Your task to perform on an android device: change the upload size in google photos Image 0: 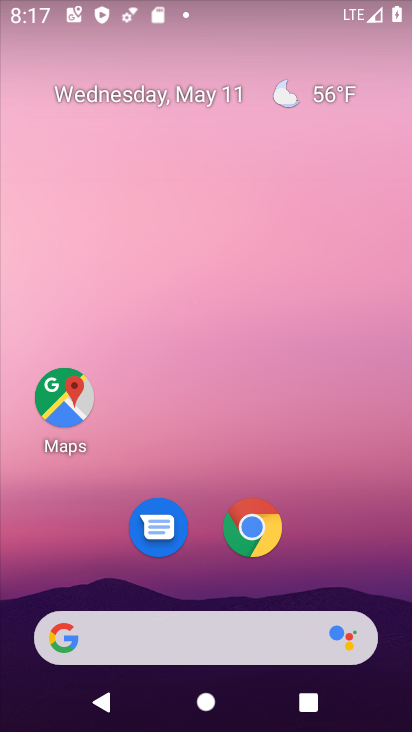
Step 0: drag from (96, 613) to (195, 217)
Your task to perform on an android device: change the upload size in google photos Image 1: 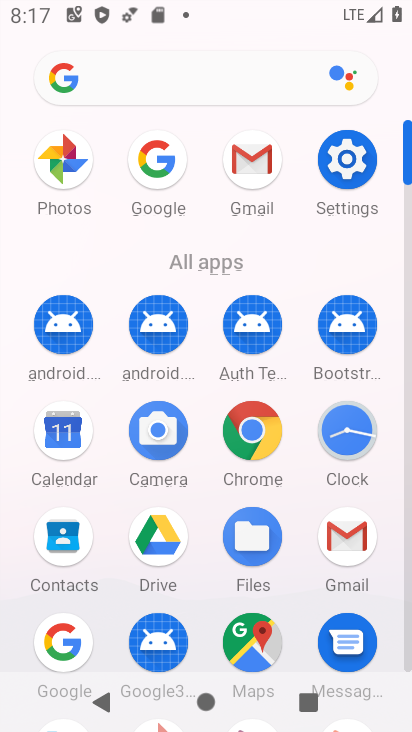
Step 1: drag from (170, 657) to (233, 479)
Your task to perform on an android device: change the upload size in google photos Image 2: 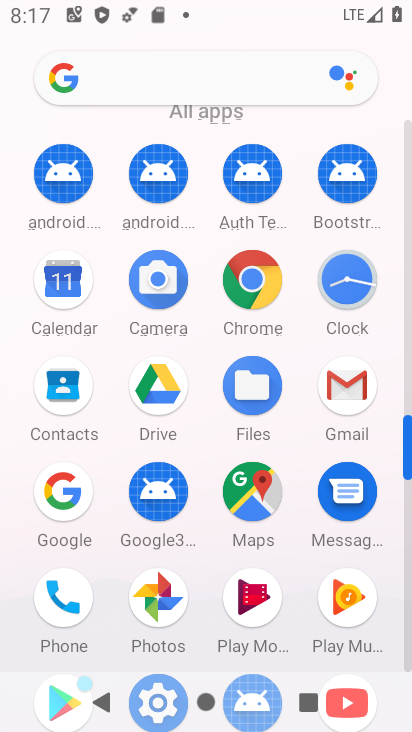
Step 2: click (171, 613)
Your task to perform on an android device: change the upload size in google photos Image 3: 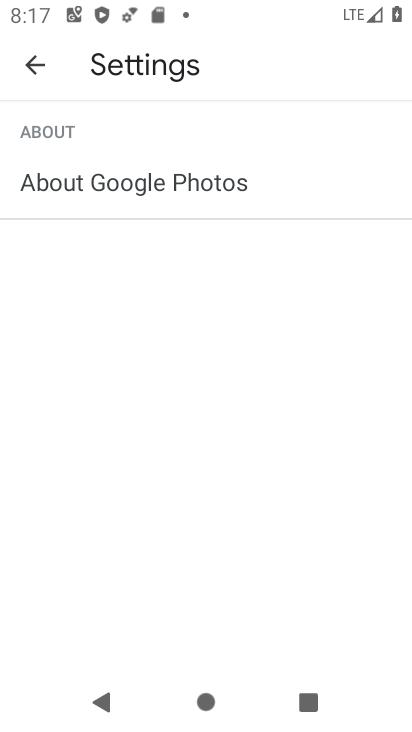
Step 3: click (34, 56)
Your task to perform on an android device: change the upload size in google photos Image 4: 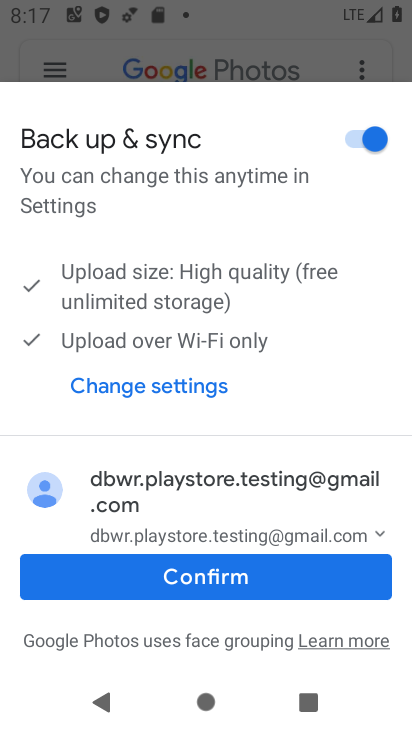
Step 4: click (253, 570)
Your task to perform on an android device: change the upload size in google photos Image 5: 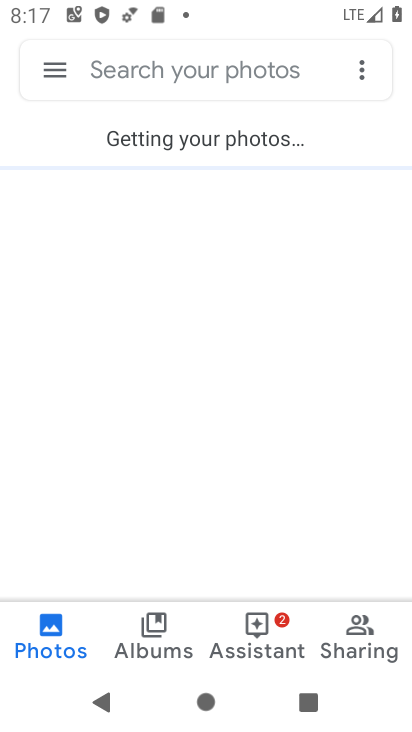
Step 5: click (69, 74)
Your task to perform on an android device: change the upload size in google photos Image 6: 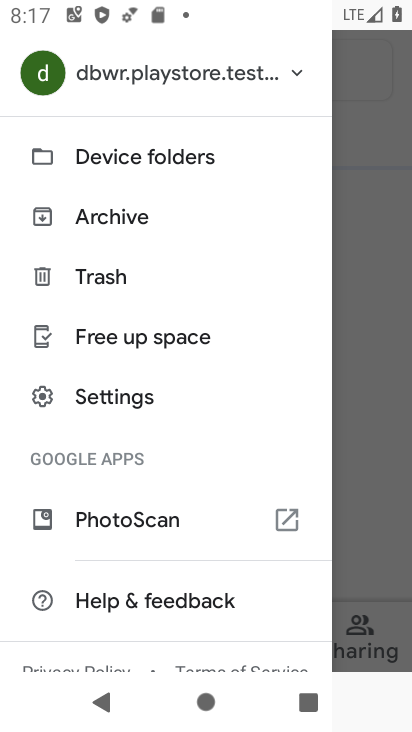
Step 6: drag from (128, 618) to (196, 382)
Your task to perform on an android device: change the upload size in google photos Image 7: 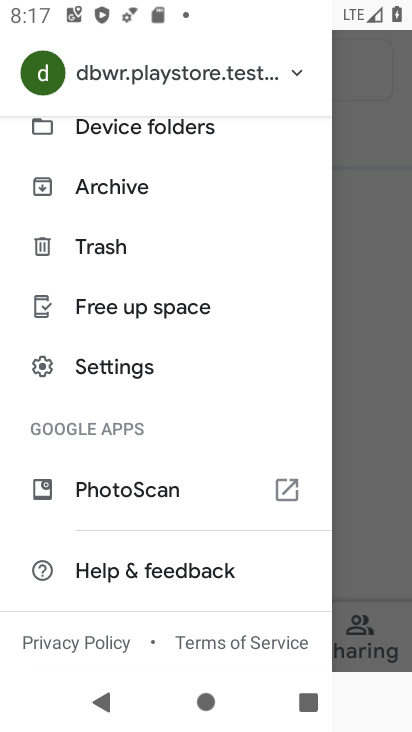
Step 7: click (187, 362)
Your task to perform on an android device: change the upload size in google photos Image 8: 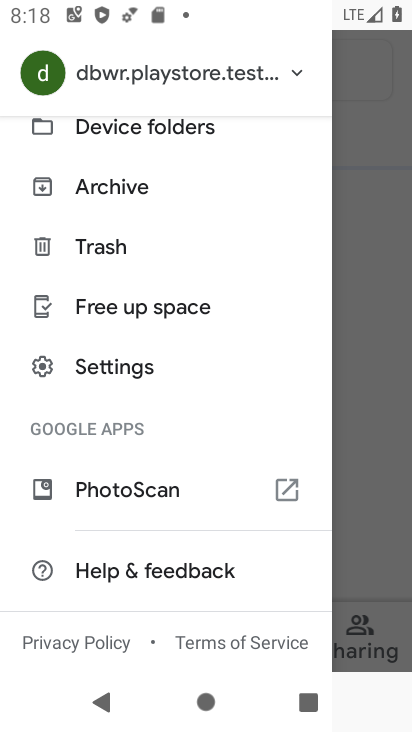
Step 8: click (155, 369)
Your task to perform on an android device: change the upload size in google photos Image 9: 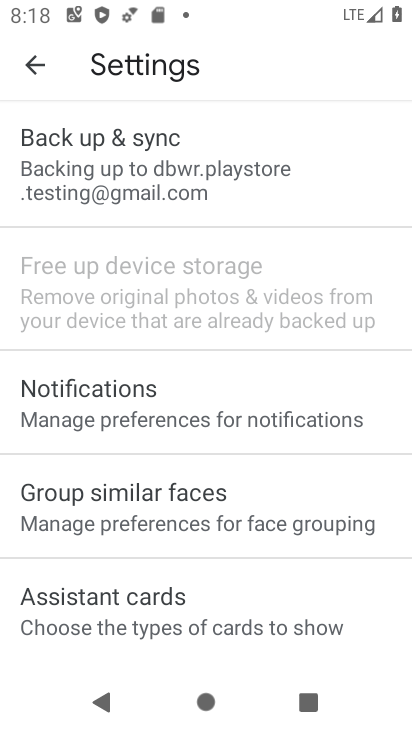
Step 9: click (227, 193)
Your task to perform on an android device: change the upload size in google photos Image 10: 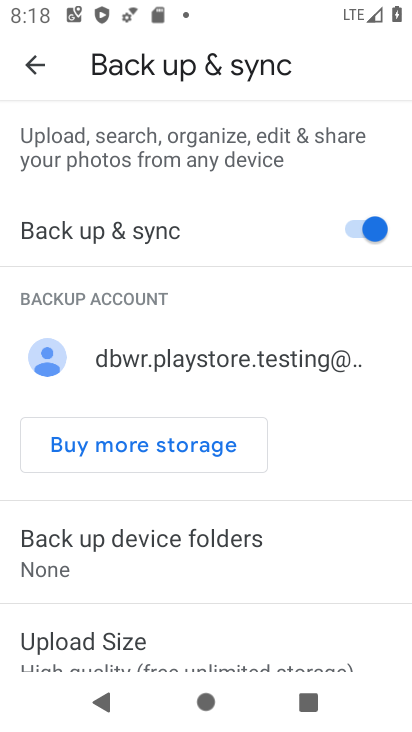
Step 10: drag from (116, 624) to (225, 309)
Your task to perform on an android device: change the upload size in google photos Image 11: 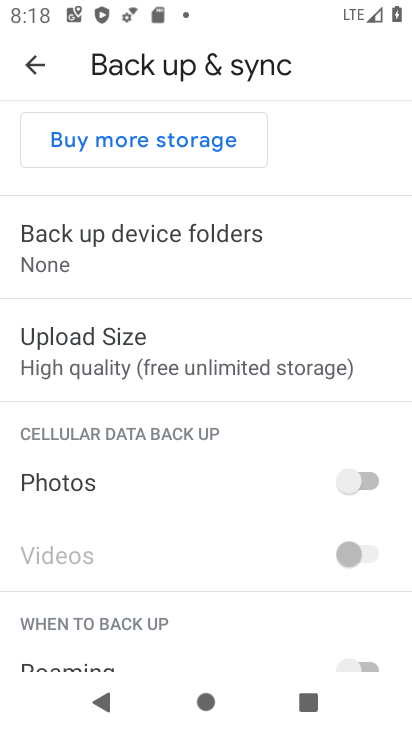
Step 11: click (172, 357)
Your task to perform on an android device: change the upload size in google photos Image 12: 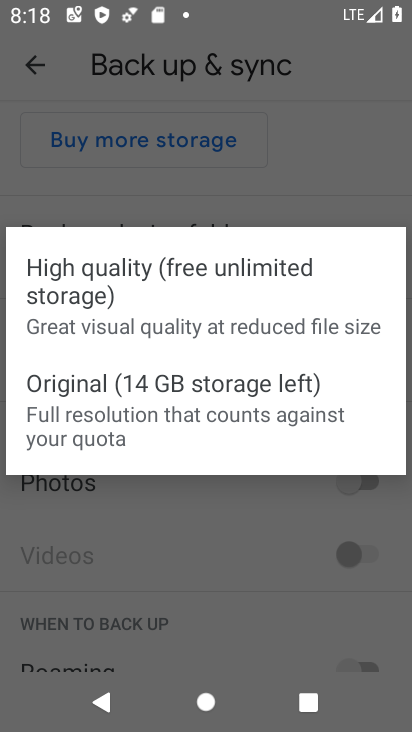
Step 12: click (137, 417)
Your task to perform on an android device: change the upload size in google photos Image 13: 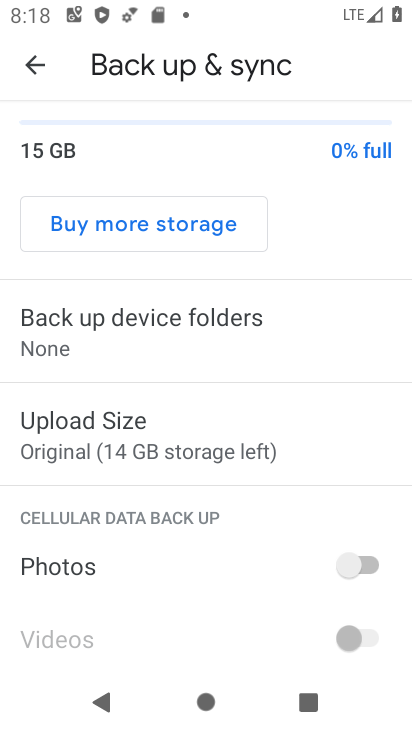
Step 13: task complete